Your task to perform on an android device: Do I have any events this weekend? Image 0: 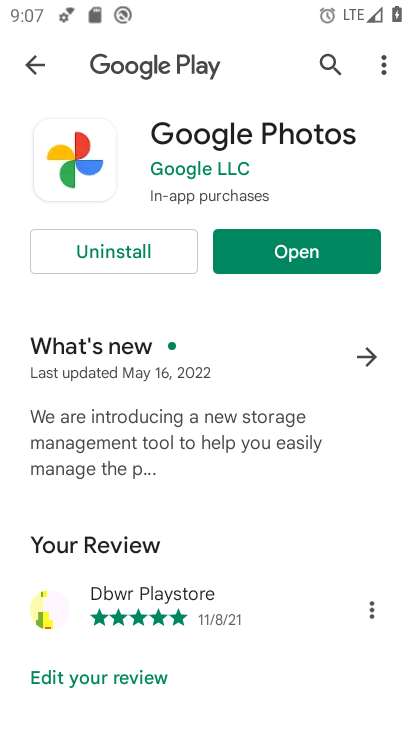
Step 0: press home button
Your task to perform on an android device: Do I have any events this weekend? Image 1: 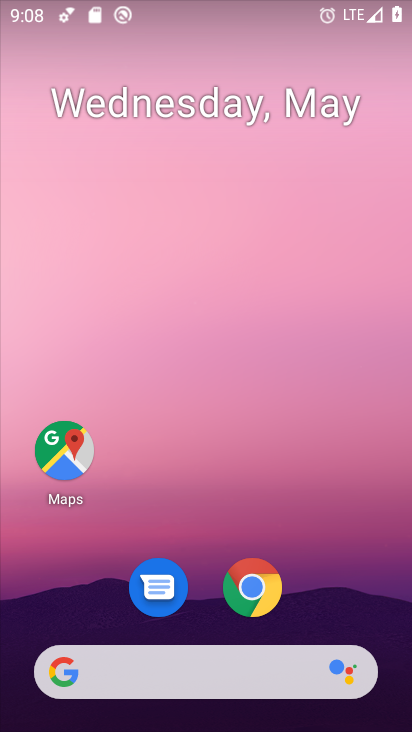
Step 1: drag from (202, 614) to (237, 60)
Your task to perform on an android device: Do I have any events this weekend? Image 2: 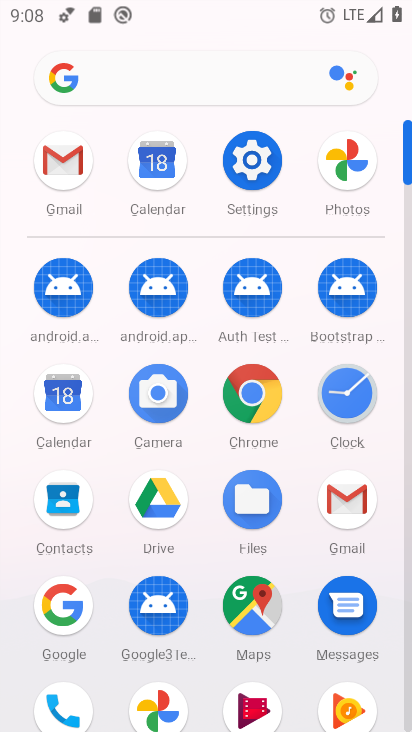
Step 2: click (64, 413)
Your task to perform on an android device: Do I have any events this weekend? Image 3: 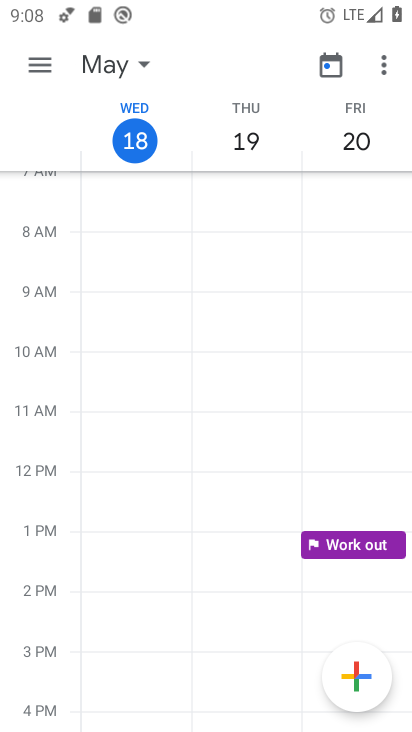
Step 3: click (38, 64)
Your task to perform on an android device: Do I have any events this weekend? Image 4: 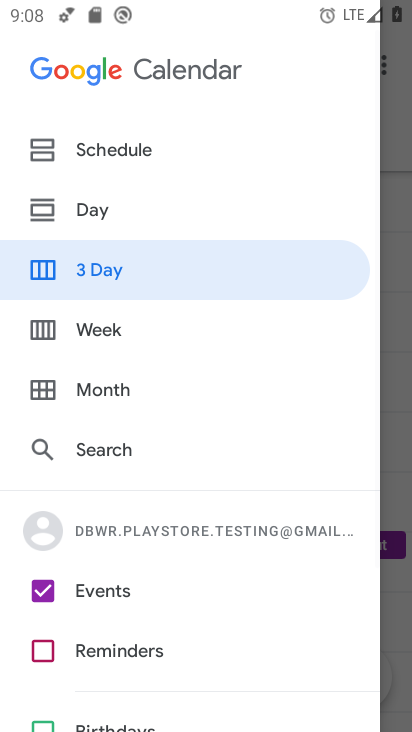
Step 4: click (103, 327)
Your task to perform on an android device: Do I have any events this weekend? Image 5: 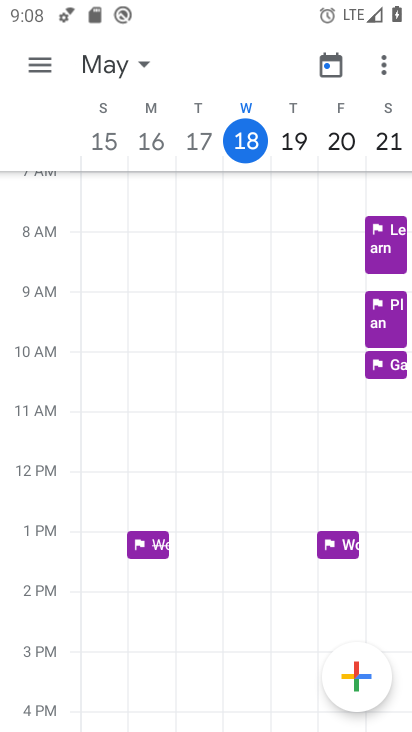
Step 5: task complete